Your task to perform on an android device: Do I have any events tomorrow? Image 0: 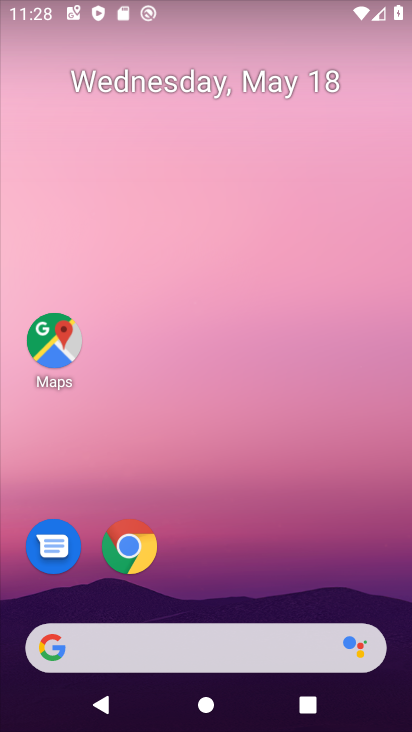
Step 0: drag from (241, 555) to (271, 82)
Your task to perform on an android device: Do I have any events tomorrow? Image 1: 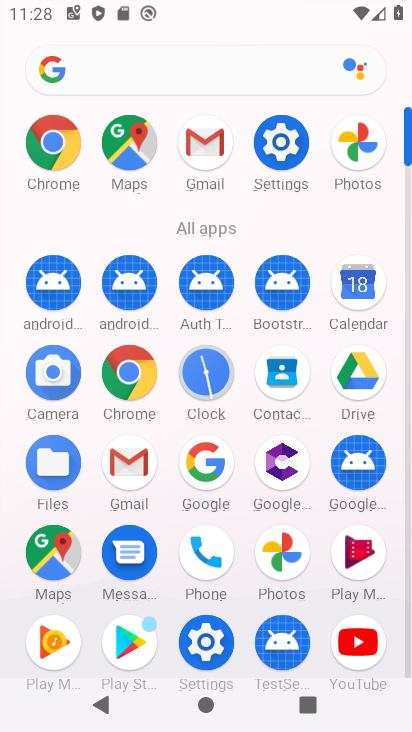
Step 1: click (361, 284)
Your task to perform on an android device: Do I have any events tomorrow? Image 2: 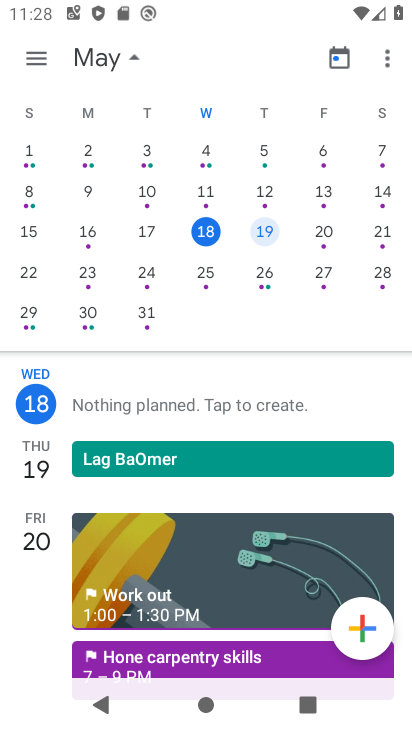
Step 2: click (264, 232)
Your task to perform on an android device: Do I have any events tomorrow? Image 3: 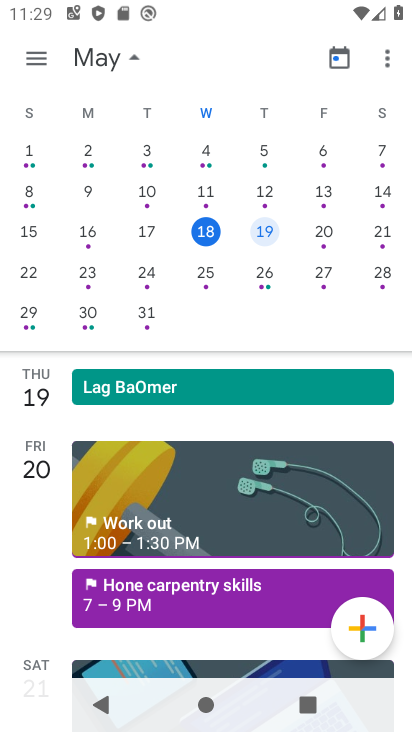
Step 3: task complete